Your task to perform on an android device: Go to Yahoo.com Image 0: 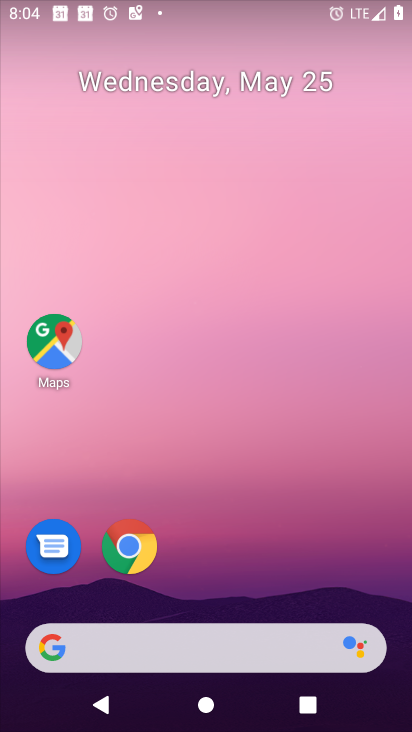
Step 0: drag from (394, 604) to (371, 128)
Your task to perform on an android device: Go to Yahoo.com Image 1: 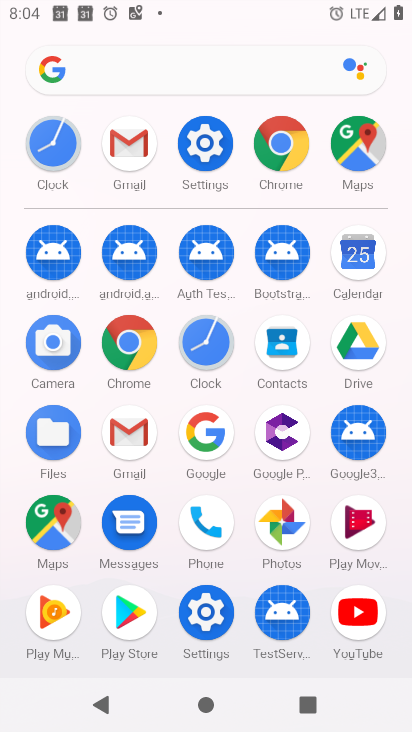
Step 1: click (146, 353)
Your task to perform on an android device: Go to Yahoo.com Image 2: 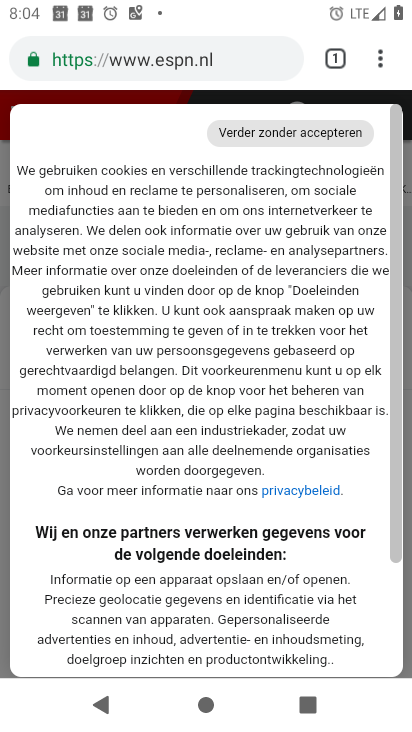
Step 2: click (228, 74)
Your task to perform on an android device: Go to Yahoo.com Image 3: 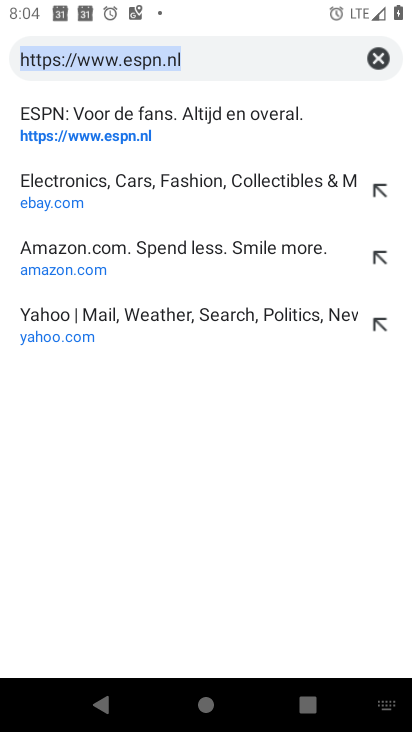
Step 3: click (381, 56)
Your task to perform on an android device: Go to Yahoo.com Image 4: 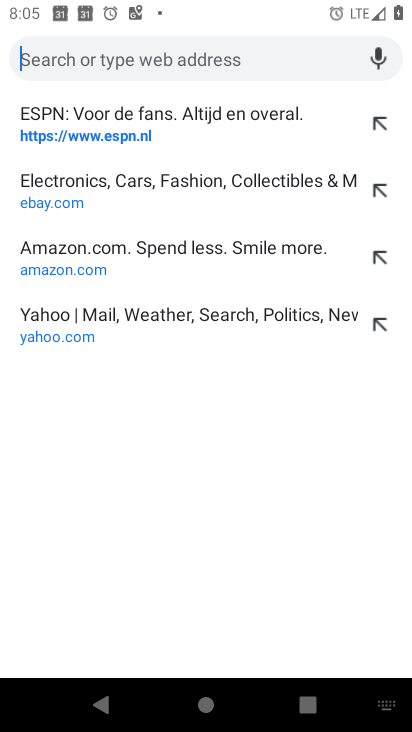
Step 4: type "yahoo.com"
Your task to perform on an android device: Go to Yahoo.com Image 5: 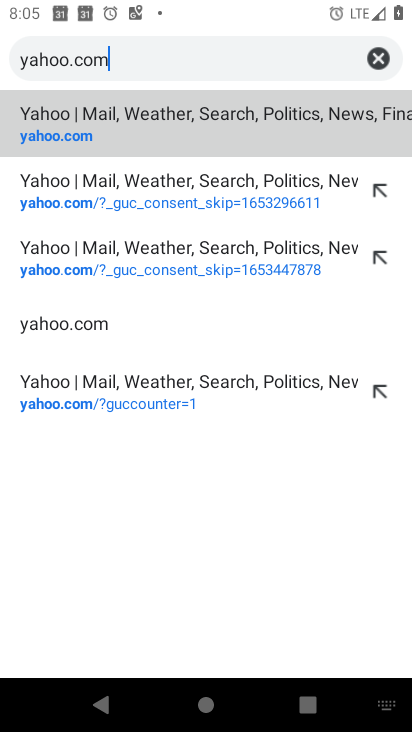
Step 5: click (165, 122)
Your task to perform on an android device: Go to Yahoo.com Image 6: 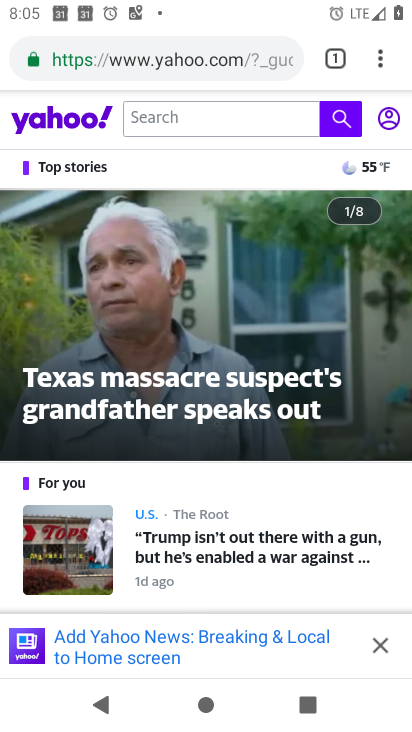
Step 6: task complete